Your task to perform on an android device: read, delete, or share a saved page in the chrome app Image 0: 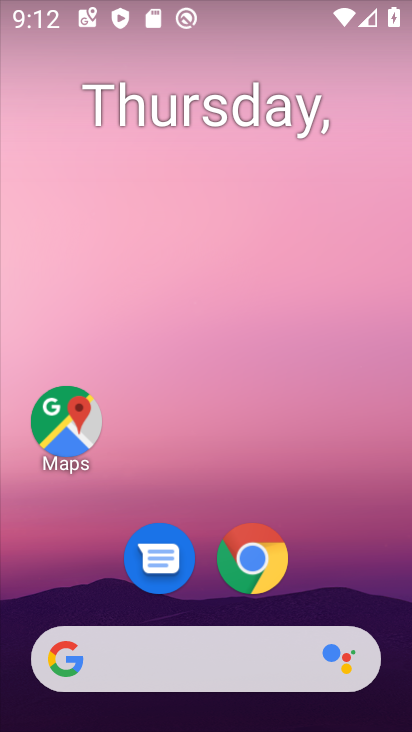
Step 0: click (255, 559)
Your task to perform on an android device: read, delete, or share a saved page in the chrome app Image 1: 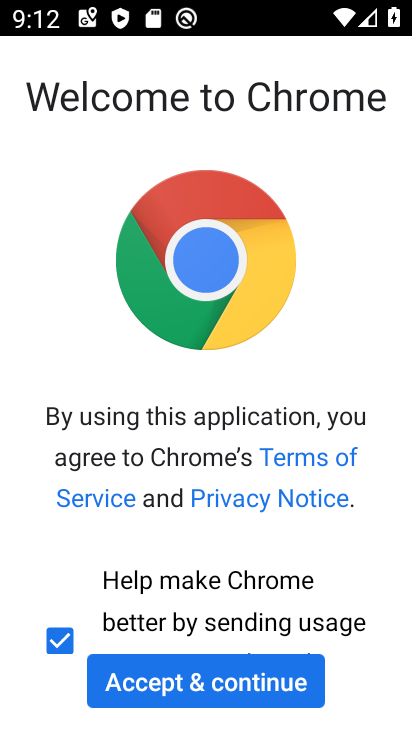
Step 1: click (213, 676)
Your task to perform on an android device: read, delete, or share a saved page in the chrome app Image 2: 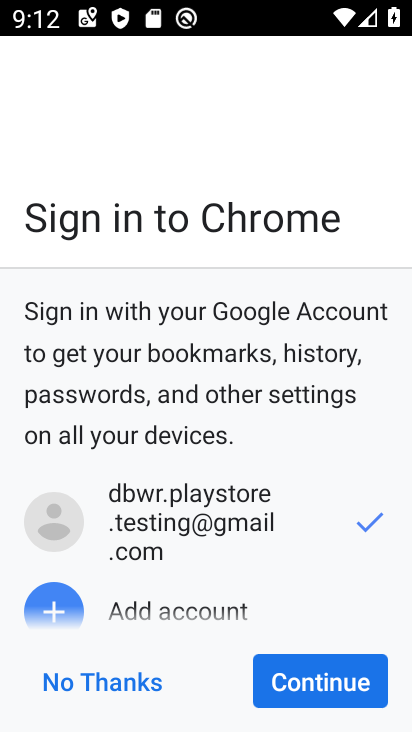
Step 2: click (319, 686)
Your task to perform on an android device: read, delete, or share a saved page in the chrome app Image 3: 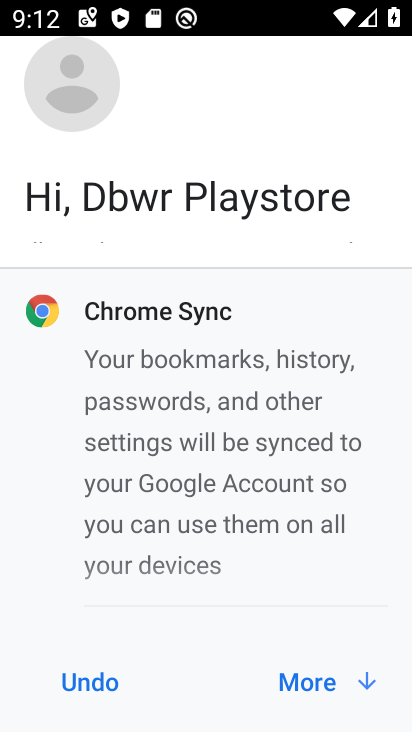
Step 3: click (319, 686)
Your task to perform on an android device: read, delete, or share a saved page in the chrome app Image 4: 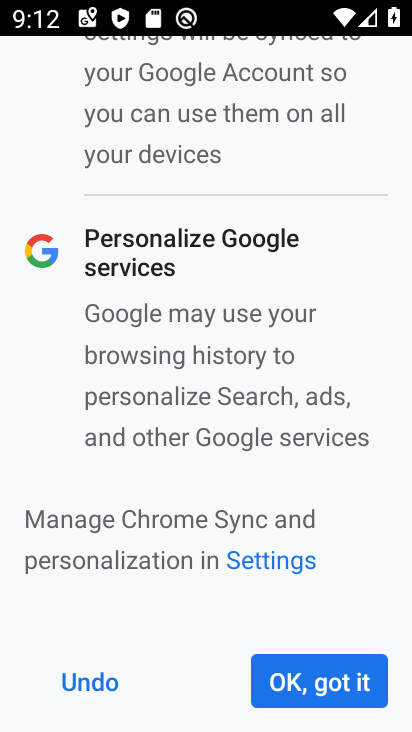
Step 4: click (319, 686)
Your task to perform on an android device: read, delete, or share a saved page in the chrome app Image 5: 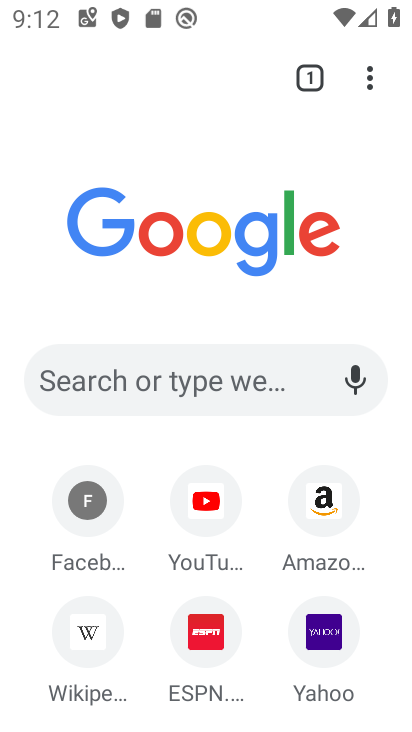
Step 5: click (369, 76)
Your task to perform on an android device: read, delete, or share a saved page in the chrome app Image 6: 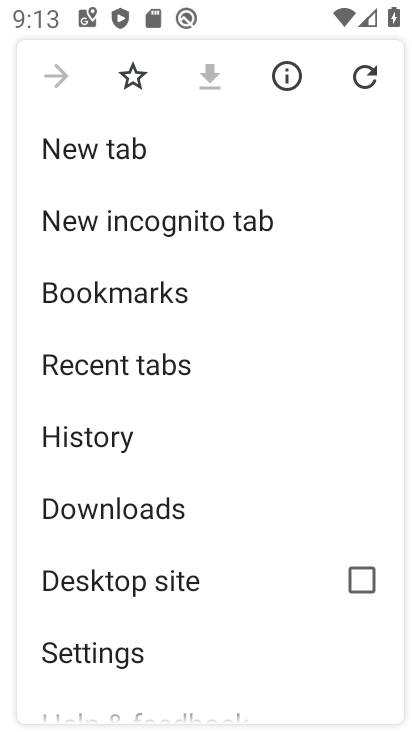
Step 6: click (105, 508)
Your task to perform on an android device: read, delete, or share a saved page in the chrome app Image 7: 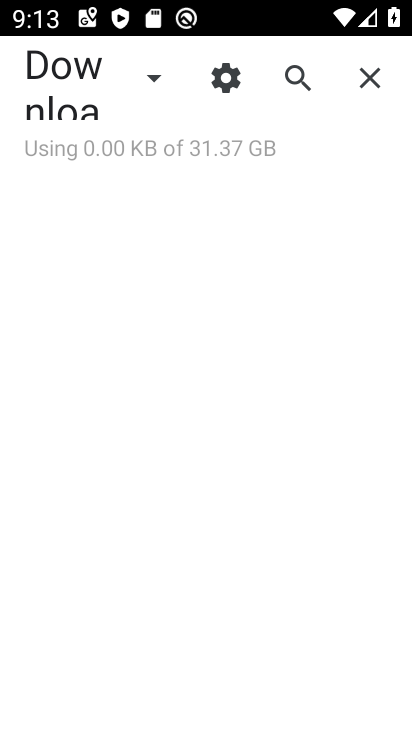
Step 7: task complete